Your task to perform on an android device: Open Wikipedia Image 0: 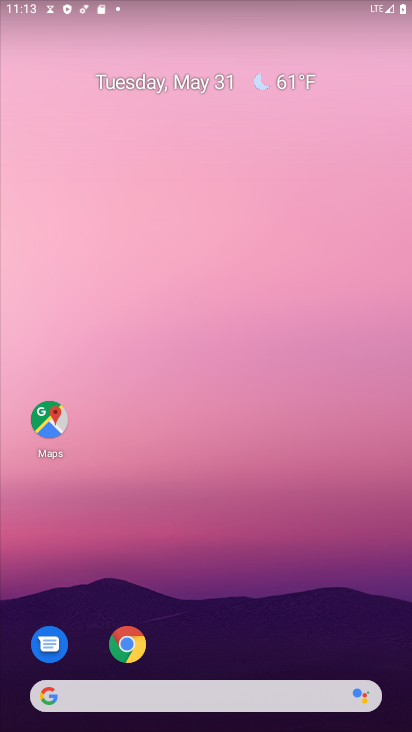
Step 0: click (122, 652)
Your task to perform on an android device: Open Wikipedia Image 1: 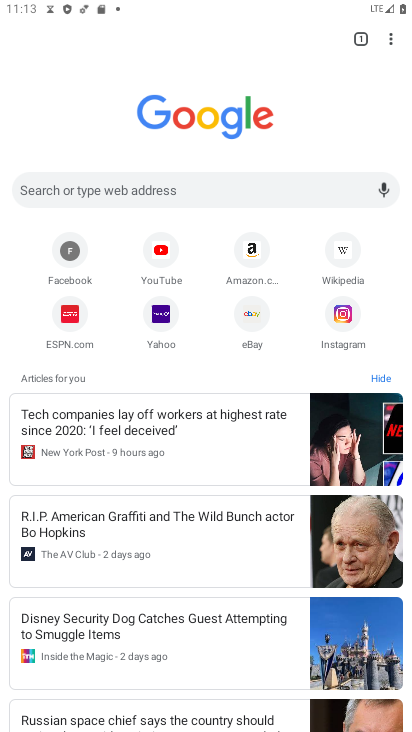
Step 1: click (345, 258)
Your task to perform on an android device: Open Wikipedia Image 2: 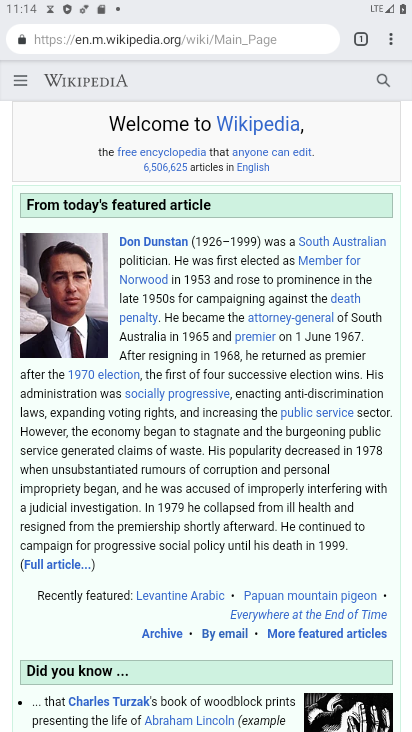
Step 2: task complete